Your task to perform on an android device: Go to ESPN.com Image 0: 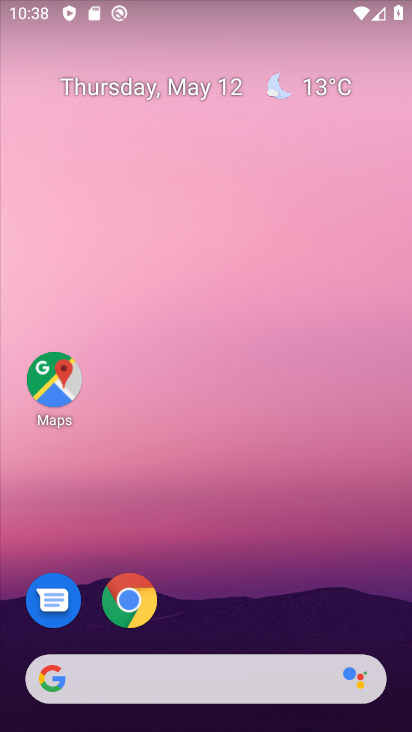
Step 0: click (131, 600)
Your task to perform on an android device: Go to ESPN.com Image 1: 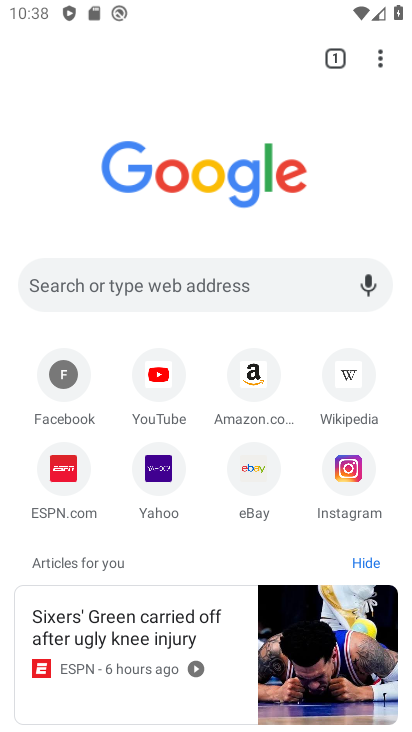
Step 1: click (115, 285)
Your task to perform on an android device: Go to ESPN.com Image 2: 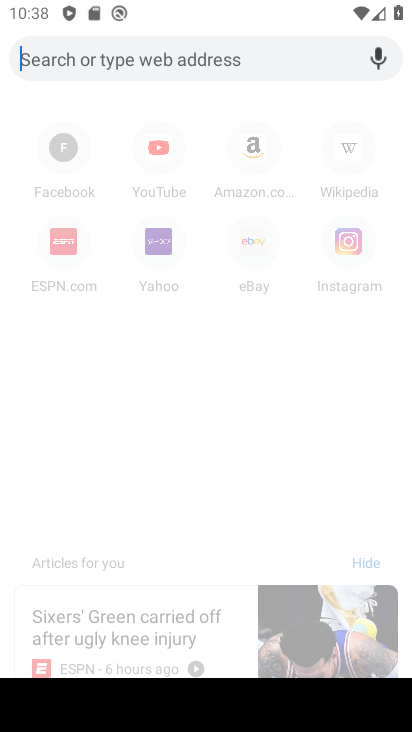
Step 2: type "espn.com"
Your task to perform on an android device: Go to ESPN.com Image 3: 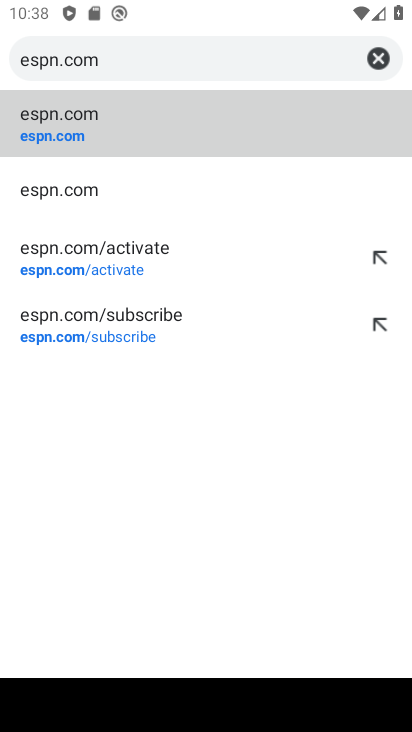
Step 3: click (72, 123)
Your task to perform on an android device: Go to ESPN.com Image 4: 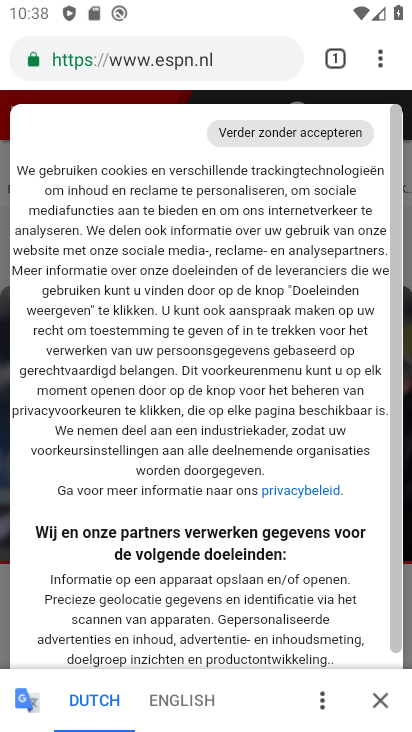
Step 4: task complete